Your task to perform on an android device: Show the shopping cart on amazon. Add "logitech g502" to the cart on amazon, then select checkout. Image 0: 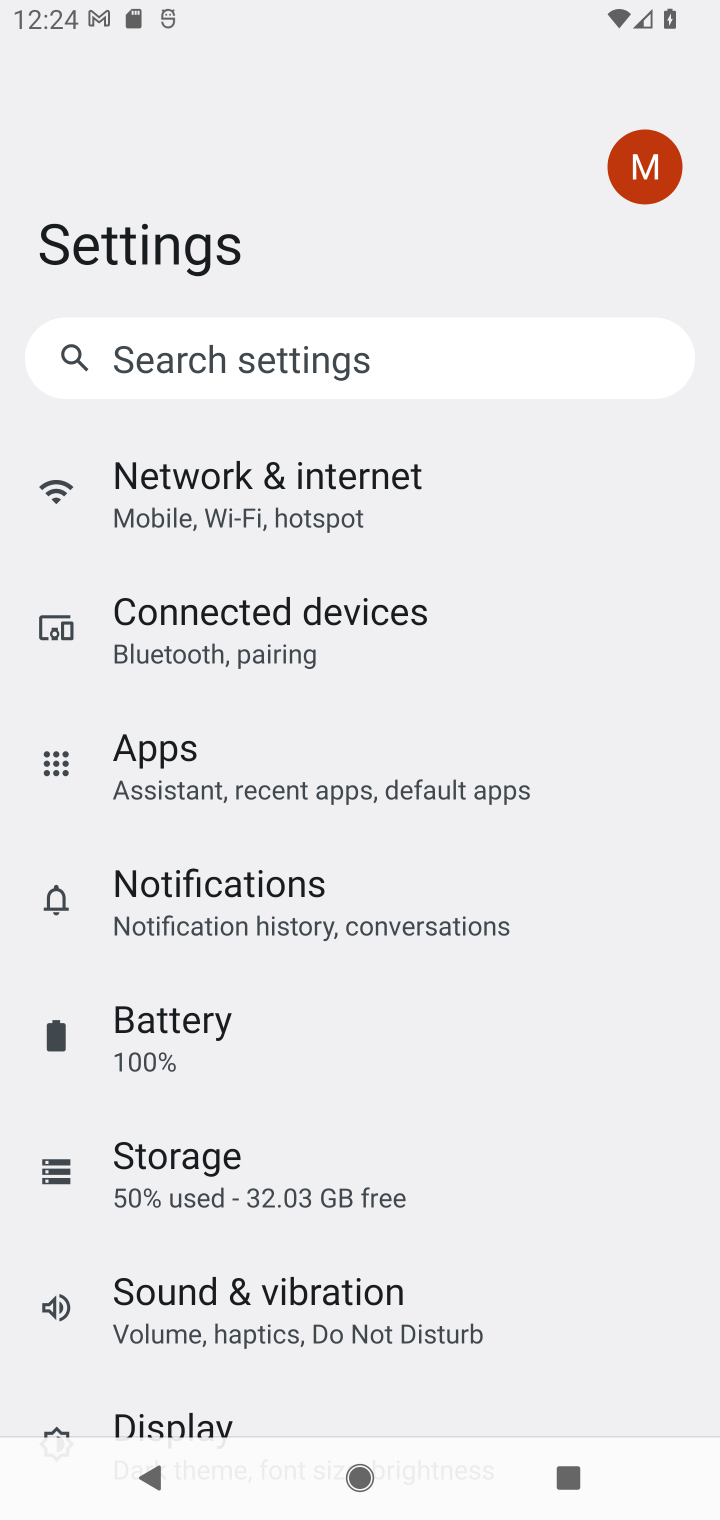
Step 0: press home button
Your task to perform on an android device: Show the shopping cart on amazon. Add "logitech g502" to the cart on amazon, then select checkout. Image 1: 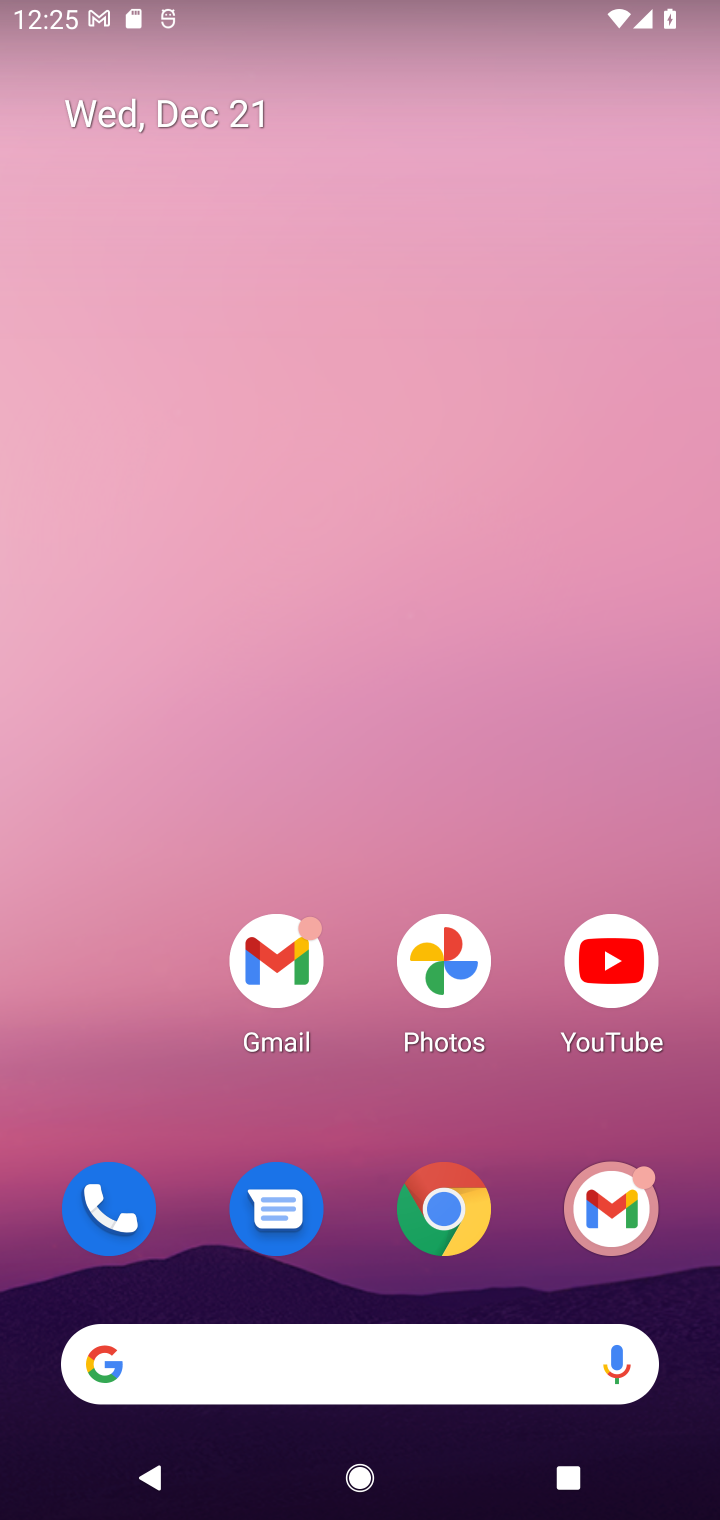
Step 1: click (449, 1220)
Your task to perform on an android device: Show the shopping cart on amazon. Add "logitech g502" to the cart on amazon, then select checkout. Image 2: 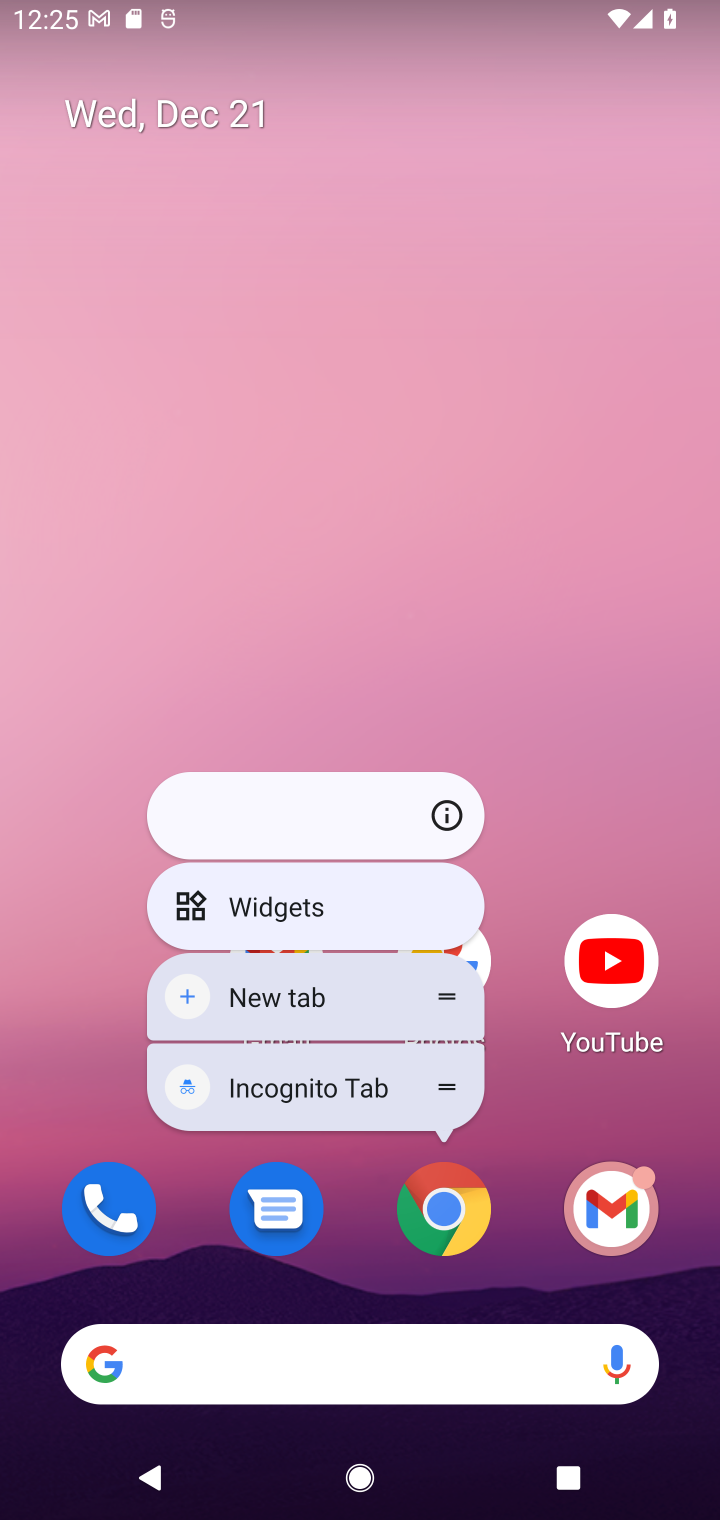
Step 2: click (449, 1220)
Your task to perform on an android device: Show the shopping cart on amazon. Add "logitech g502" to the cart on amazon, then select checkout. Image 3: 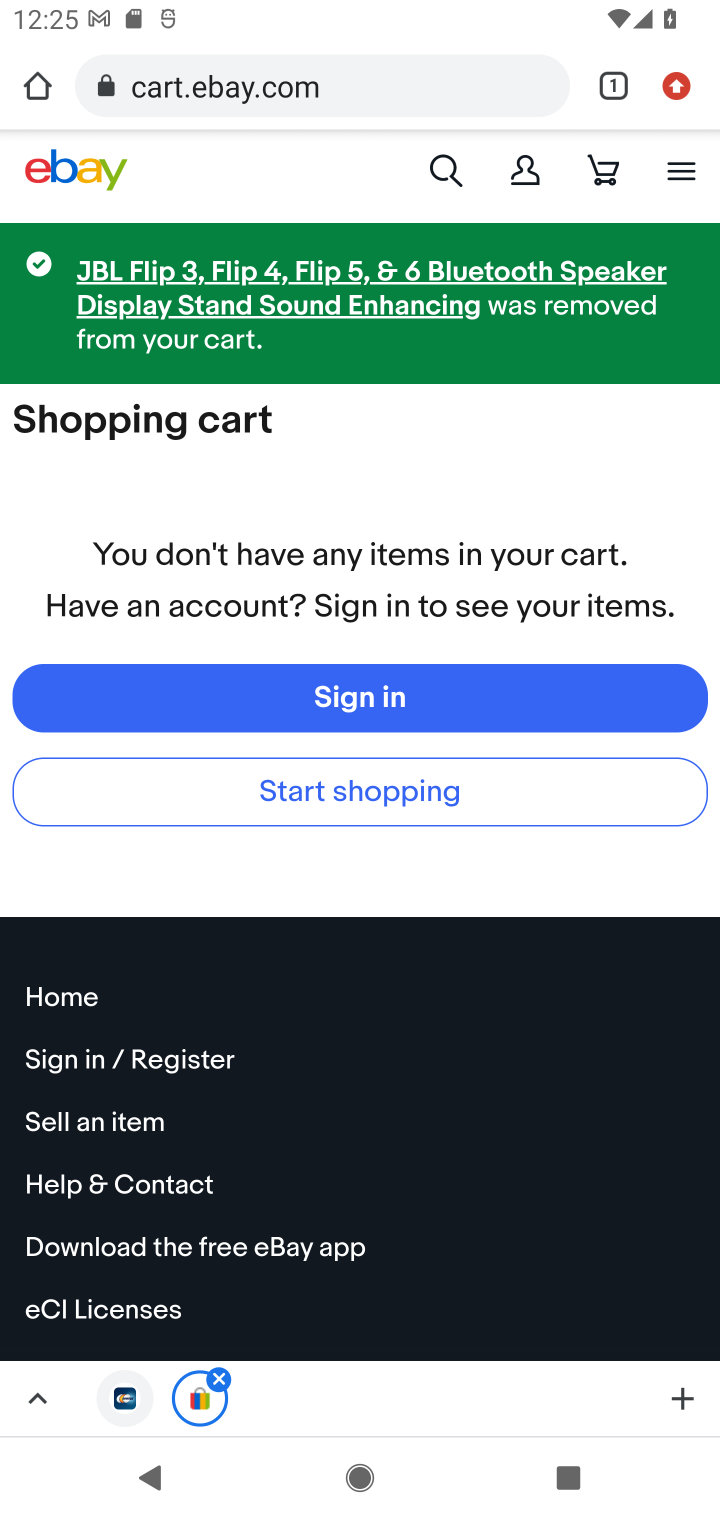
Step 3: click (215, 98)
Your task to perform on an android device: Show the shopping cart on amazon. Add "logitech g502" to the cart on amazon, then select checkout. Image 4: 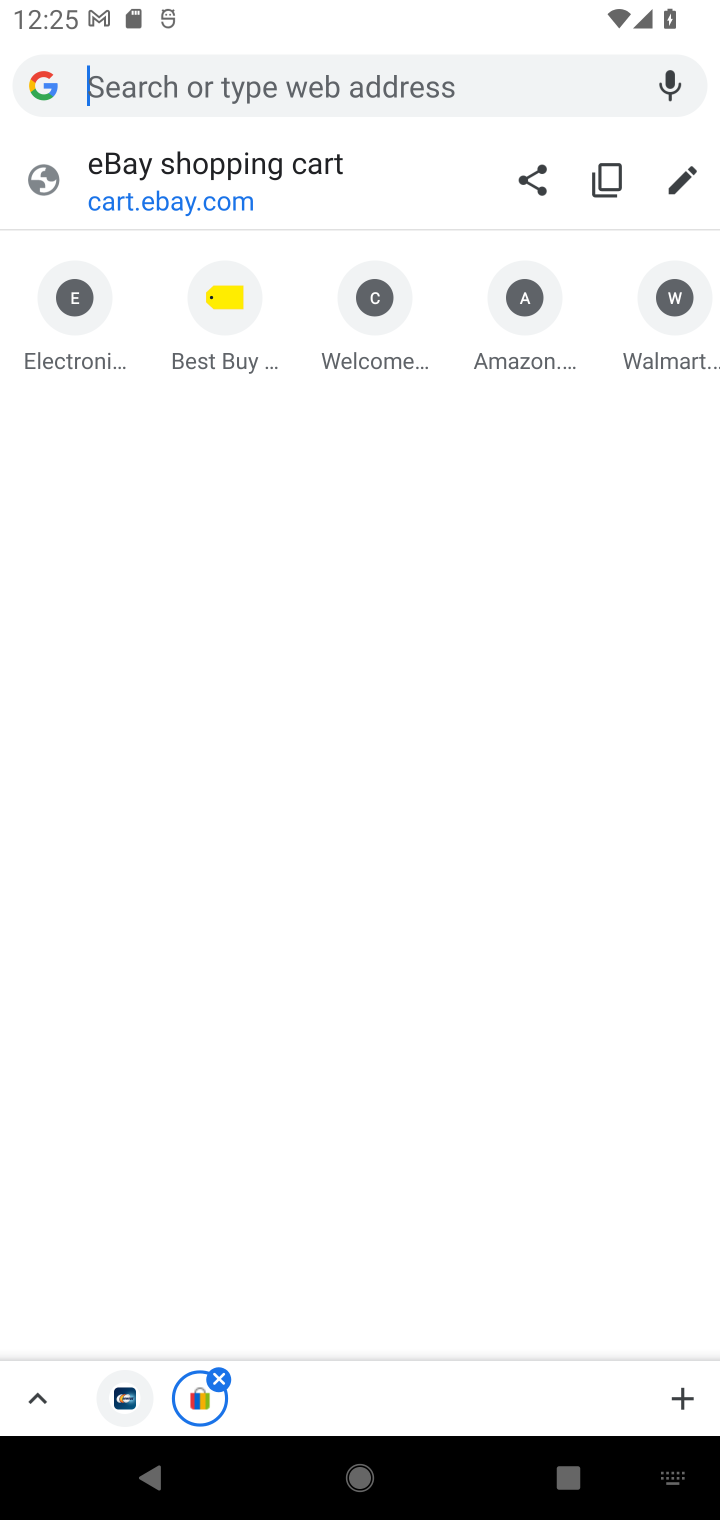
Step 4: click (518, 363)
Your task to perform on an android device: Show the shopping cart on amazon. Add "logitech g502" to the cart on amazon, then select checkout. Image 5: 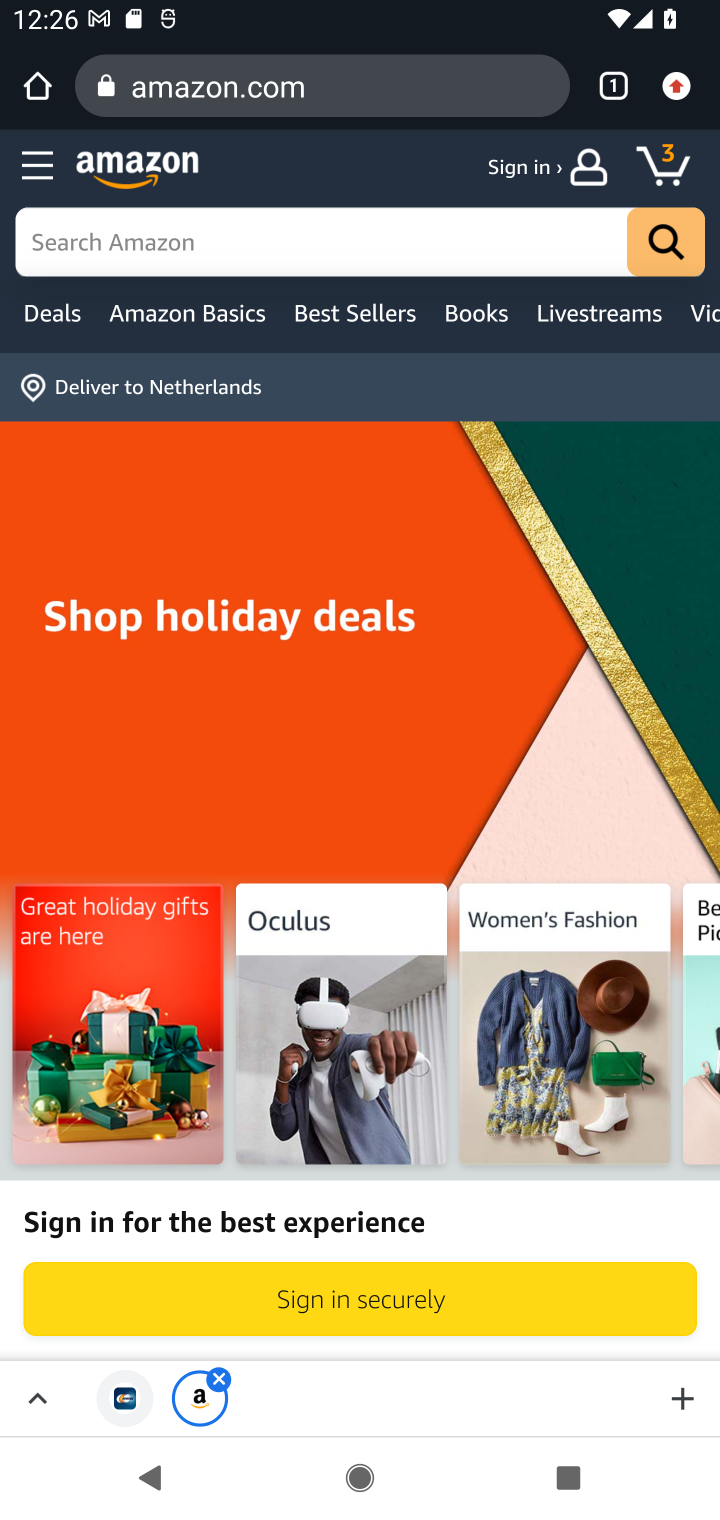
Step 5: click (661, 161)
Your task to perform on an android device: Show the shopping cart on amazon. Add "logitech g502" to the cart on amazon, then select checkout. Image 6: 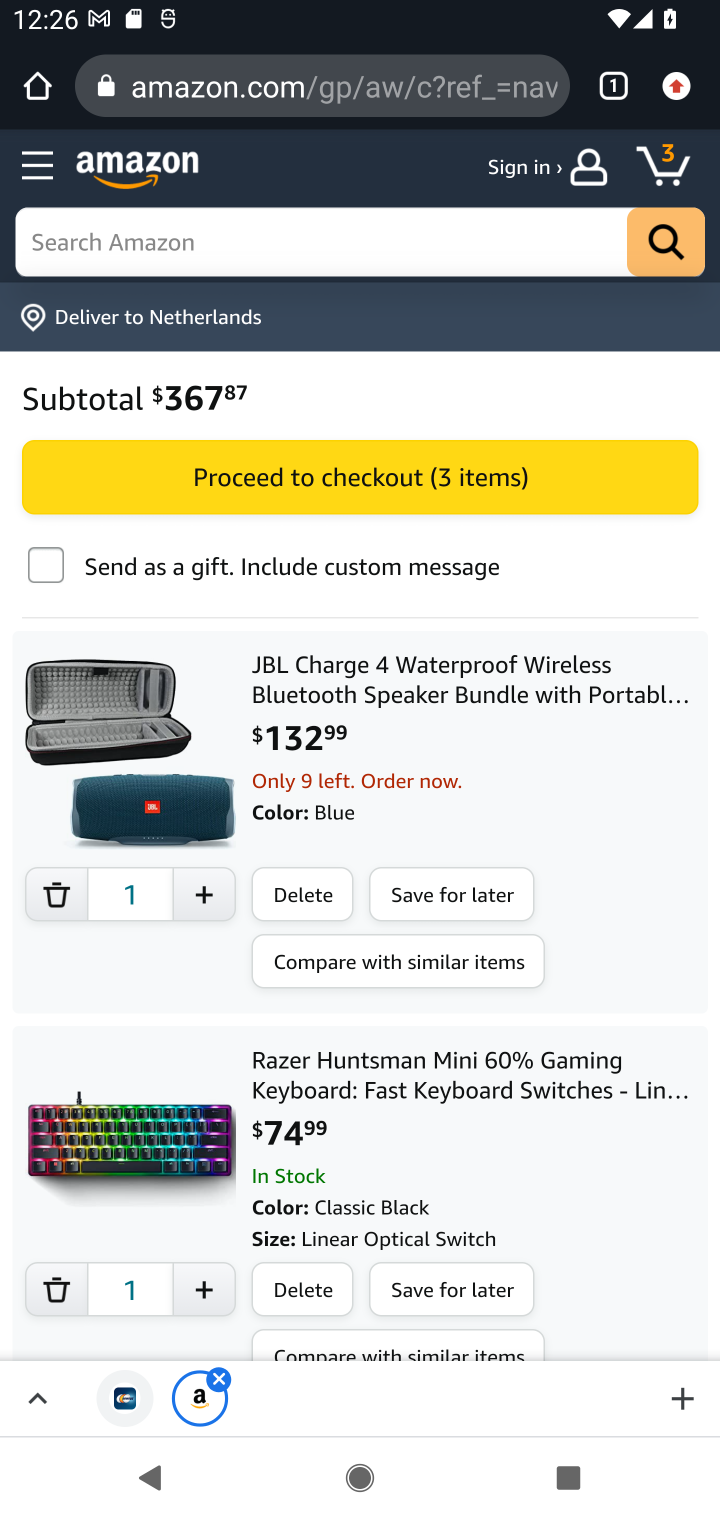
Step 6: click (100, 222)
Your task to perform on an android device: Show the shopping cart on amazon. Add "logitech g502" to the cart on amazon, then select checkout. Image 7: 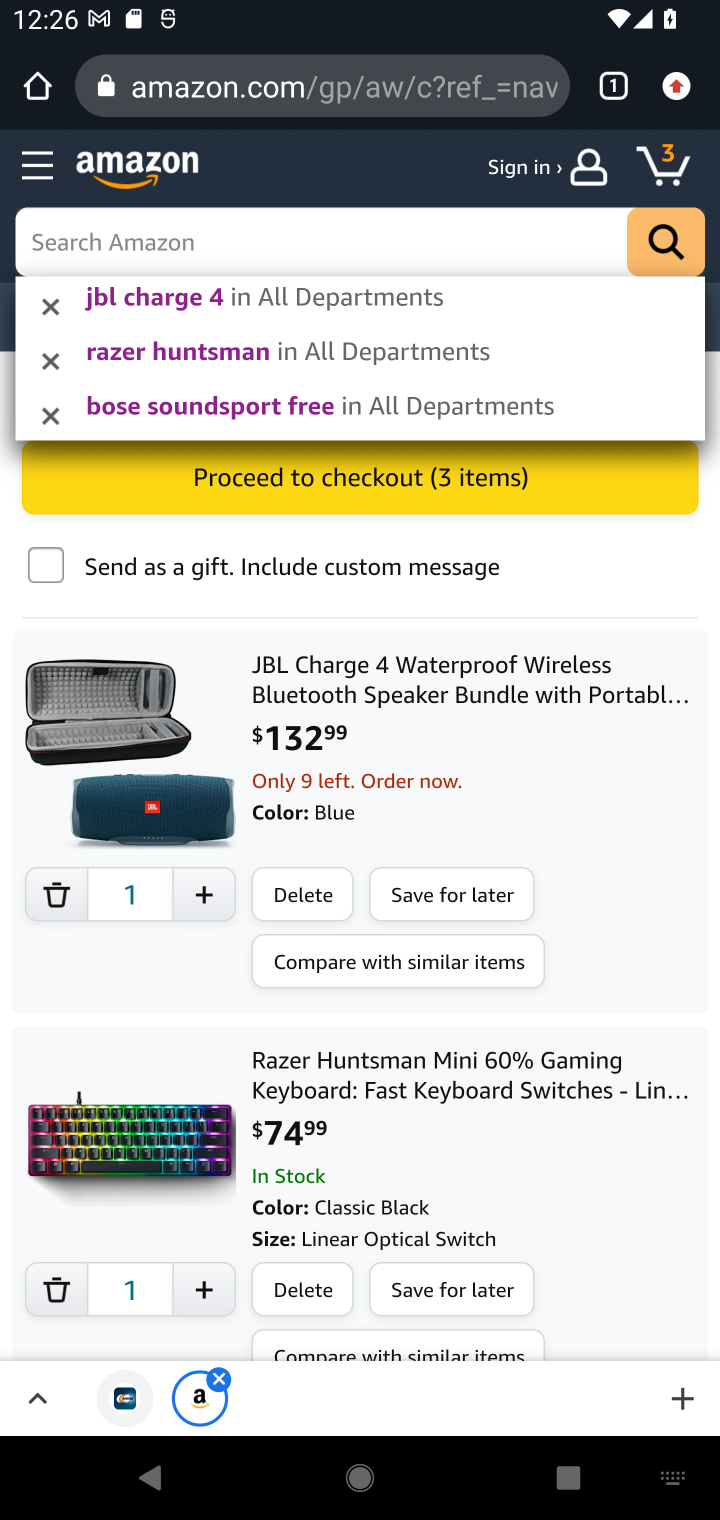
Step 7: type "logitech g502"
Your task to perform on an android device: Show the shopping cart on amazon. Add "logitech g502" to the cart on amazon, then select checkout. Image 8: 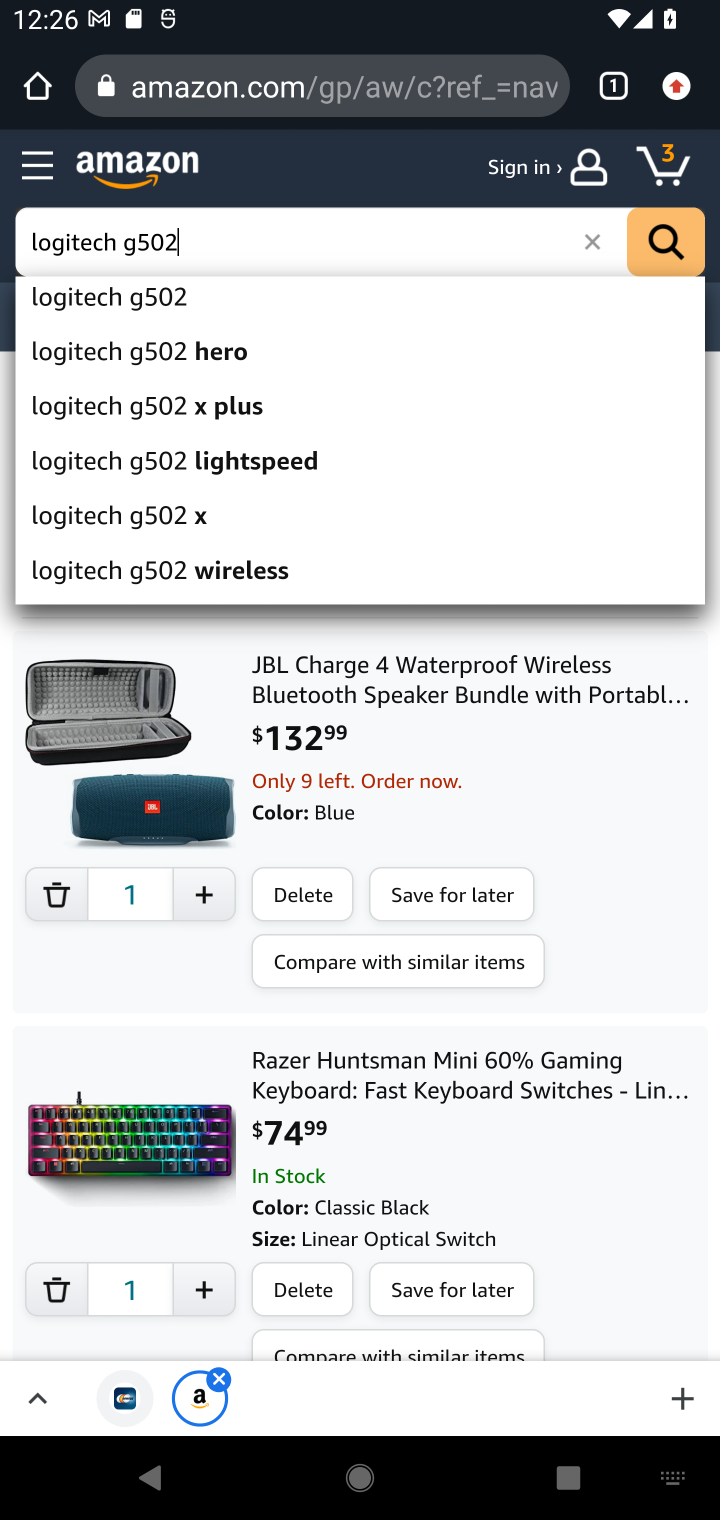
Step 8: click (132, 310)
Your task to perform on an android device: Show the shopping cart on amazon. Add "logitech g502" to the cart on amazon, then select checkout. Image 9: 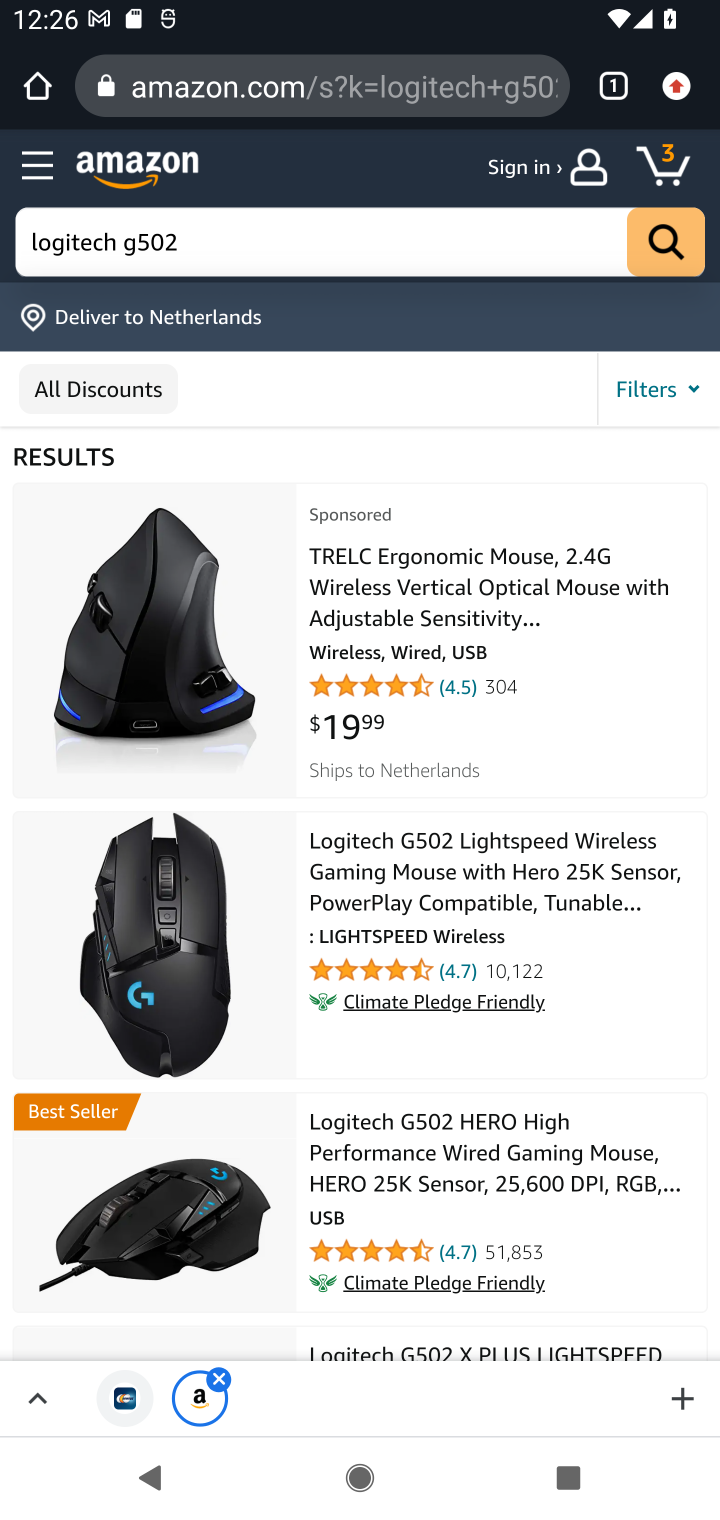
Step 9: drag from (424, 887) to (436, 511)
Your task to perform on an android device: Show the shopping cart on amazon. Add "logitech g502" to the cart on amazon, then select checkout. Image 10: 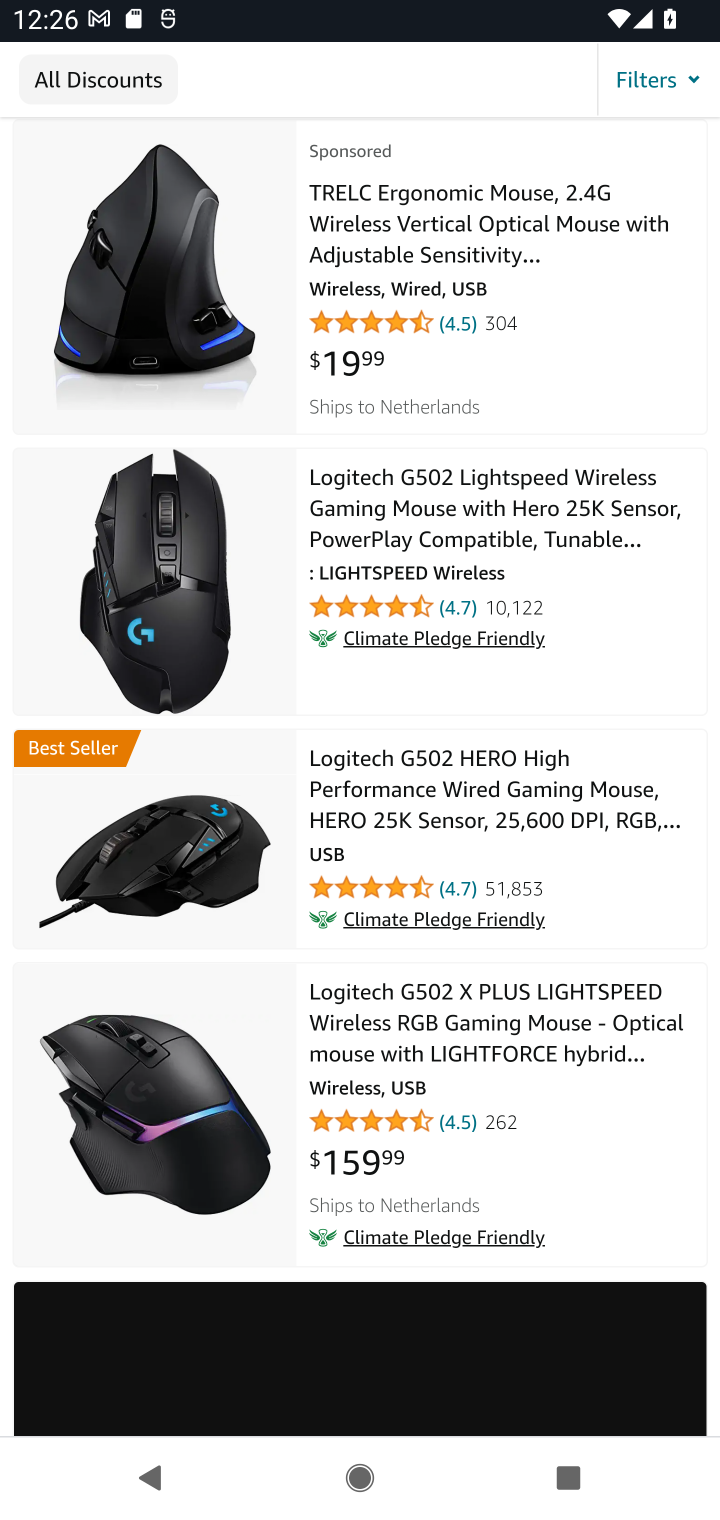
Step 10: drag from (422, 1017) to (419, 640)
Your task to perform on an android device: Show the shopping cart on amazon. Add "logitech g502" to the cart on amazon, then select checkout. Image 11: 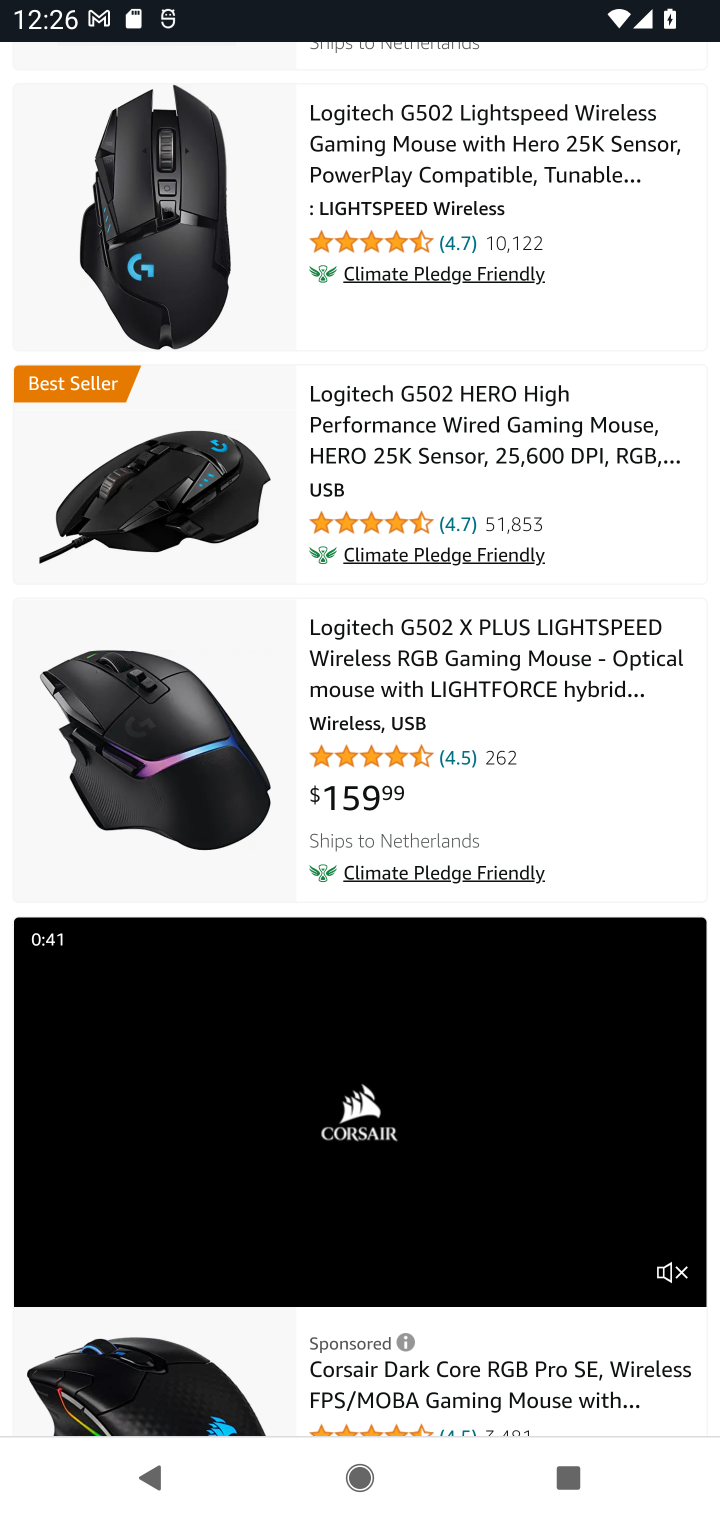
Step 11: click (418, 678)
Your task to perform on an android device: Show the shopping cart on amazon. Add "logitech g502" to the cart on amazon, then select checkout. Image 12: 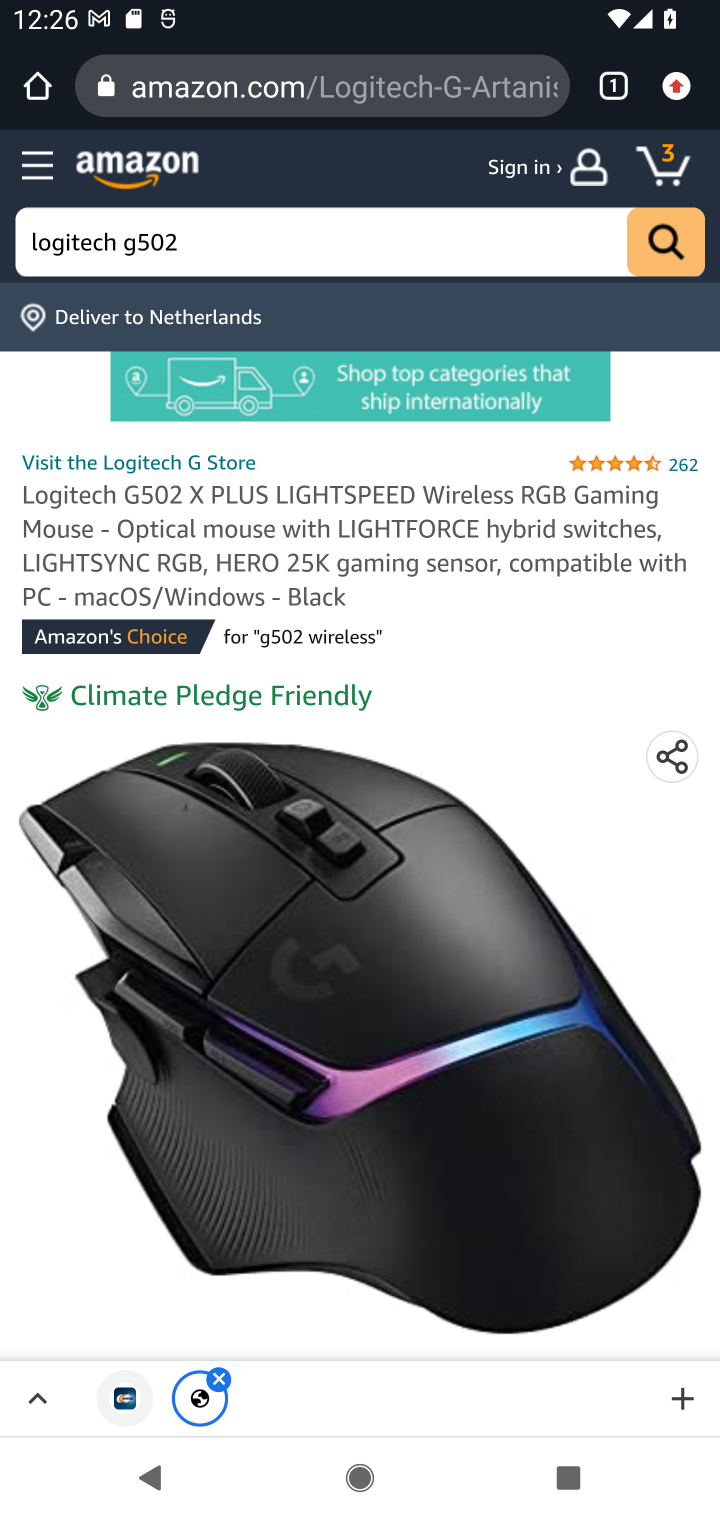
Step 12: drag from (328, 1064) to (316, 453)
Your task to perform on an android device: Show the shopping cart on amazon. Add "logitech g502" to the cart on amazon, then select checkout. Image 13: 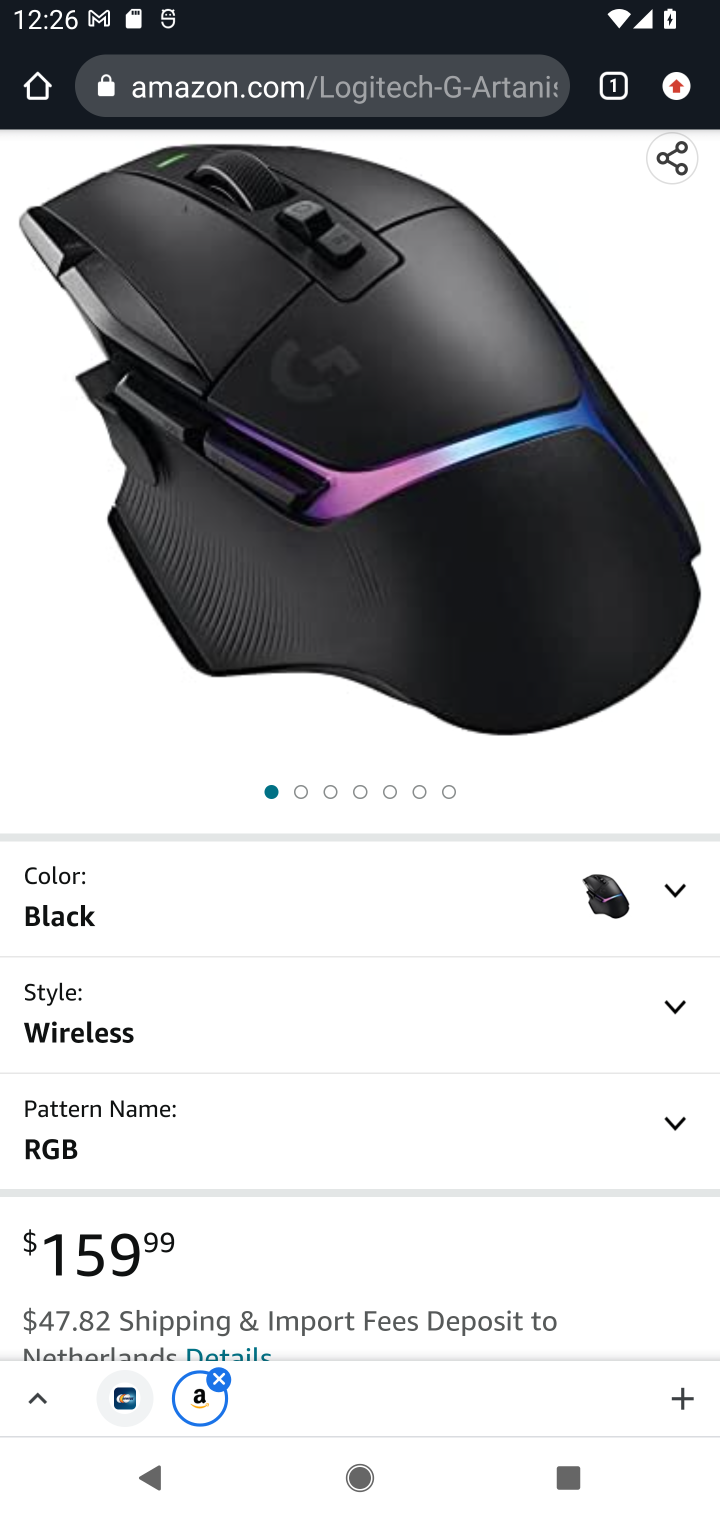
Step 13: drag from (295, 1103) to (326, 587)
Your task to perform on an android device: Show the shopping cart on amazon. Add "logitech g502" to the cart on amazon, then select checkout. Image 14: 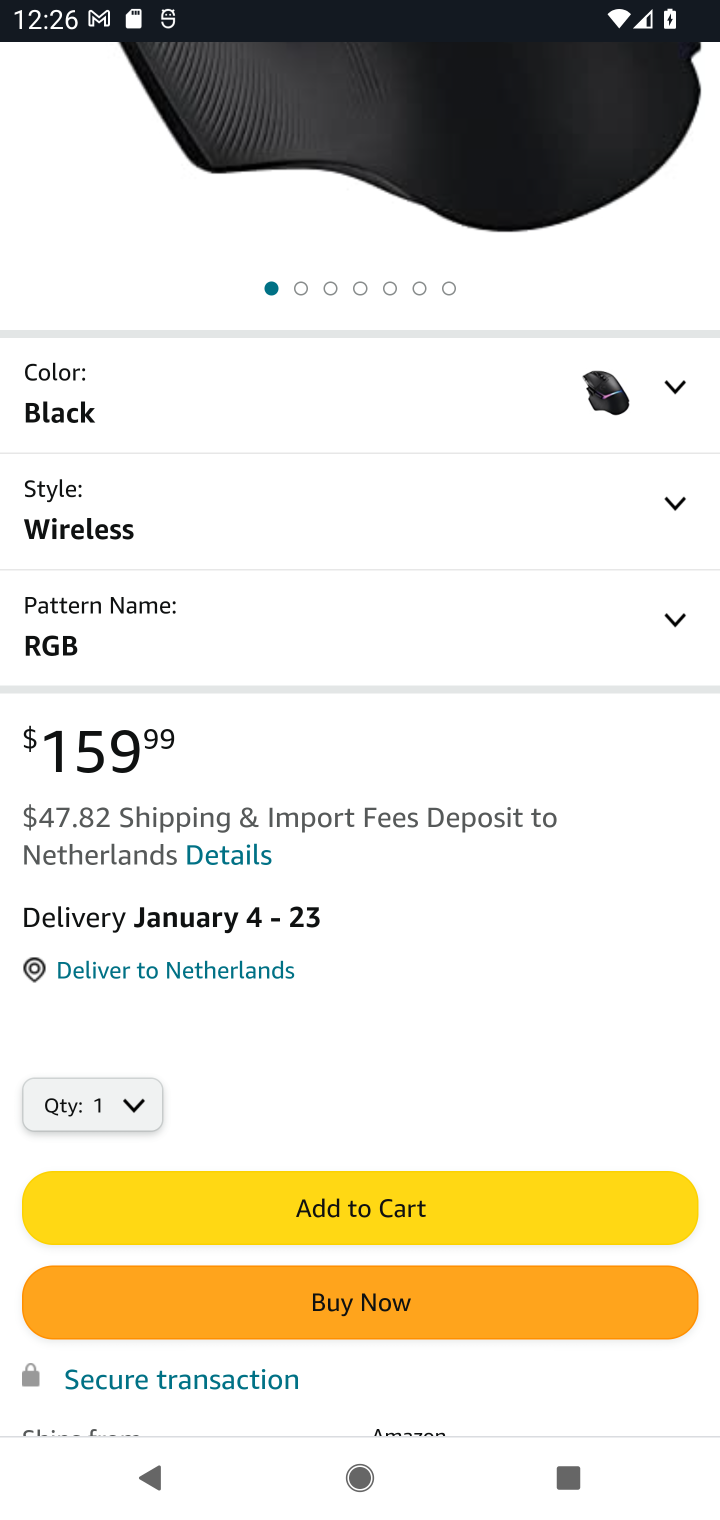
Step 14: click (307, 1213)
Your task to perform on an android device: Show the shopping cart on amazon. Add "logitech g502" to the cart on amazon, then select checkout. Image 15: 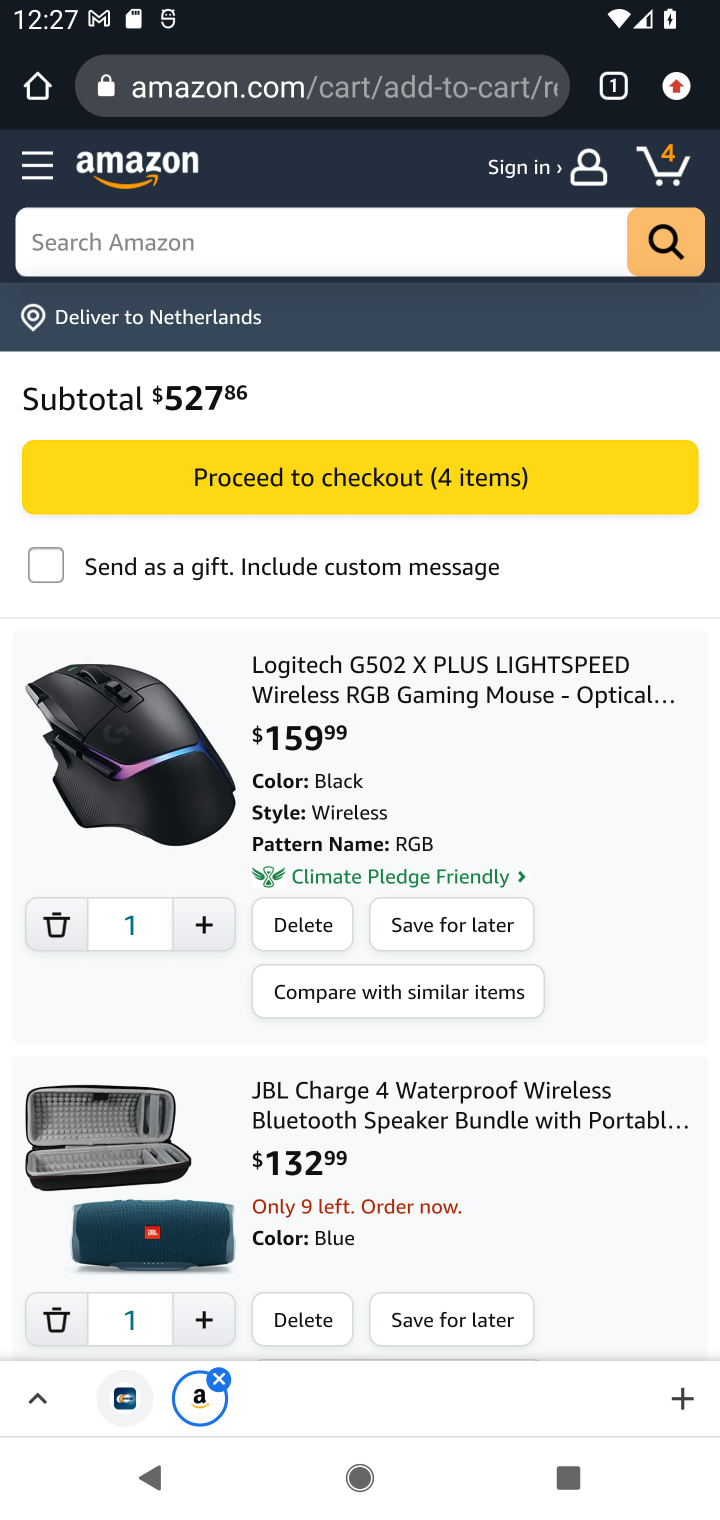
Step 15: click (315, 481)
Your task to perform on an android device: Show the shopping cart on amazon. Add "logitech g502" to the cart on amazon, then select checkout. Image 16: 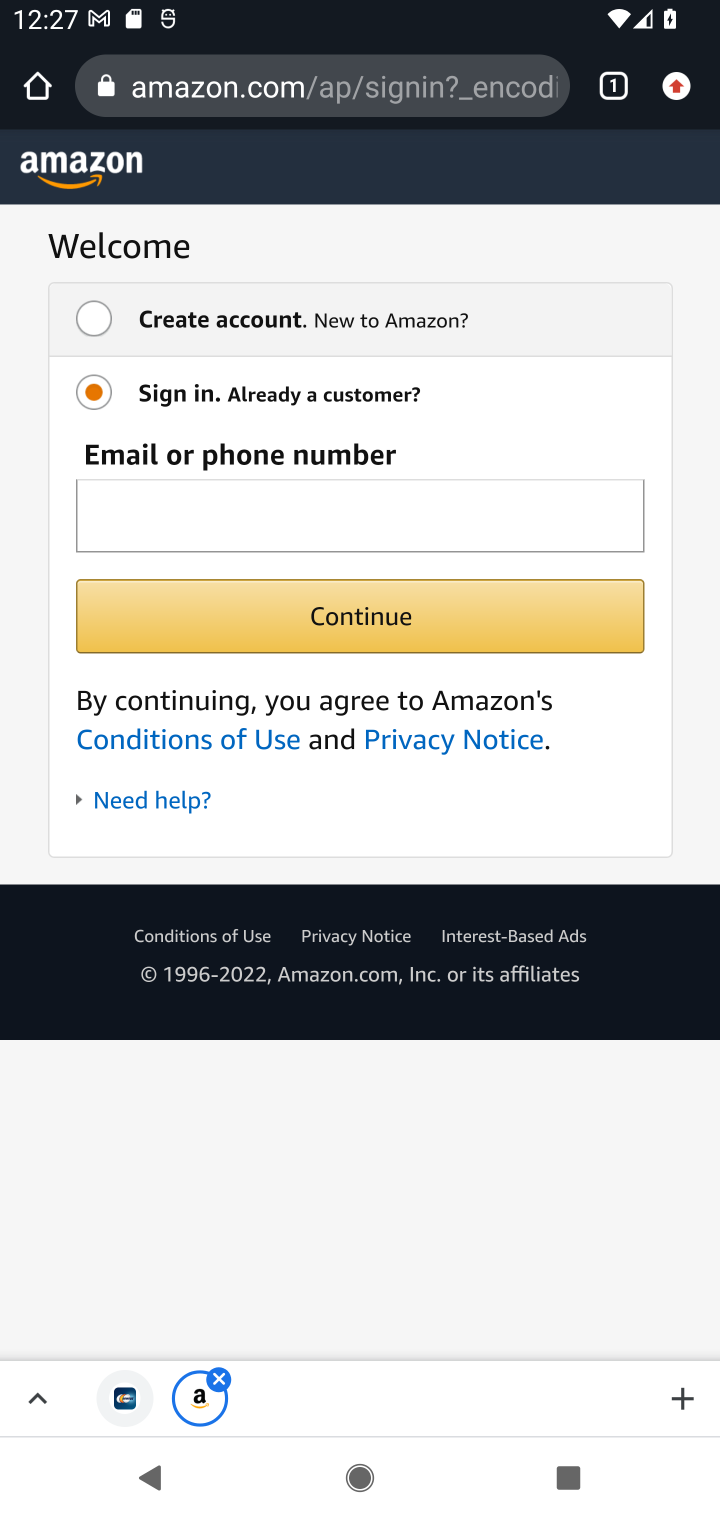
Step 16: task complete